Your task to perform on an android device: find snoozed emails in the gmail app Image 0: 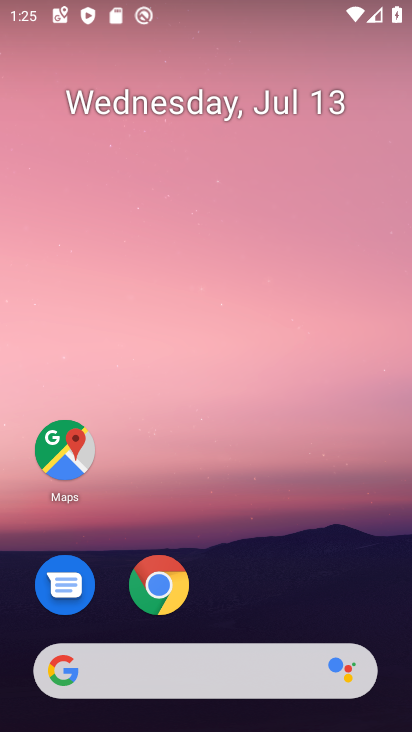
Step 0: drag from (196, 662) to (287, 242)
Your task to perform on an android device: find snoozed emails in the gmail app Image 1: 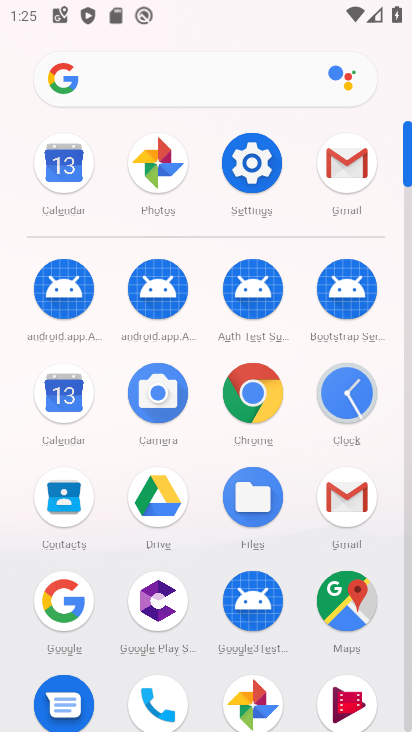
Step 1: click (347, 171)
Your task to perform on an android device: find snoozed emails in the gmail app Image 2: 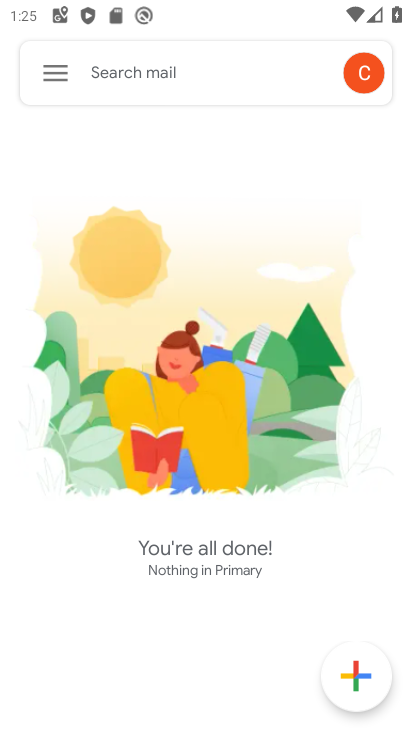
Step 2: click (54, 74)
Your task to perform on an android device: find snoozed emails in the gmail app Image 3: 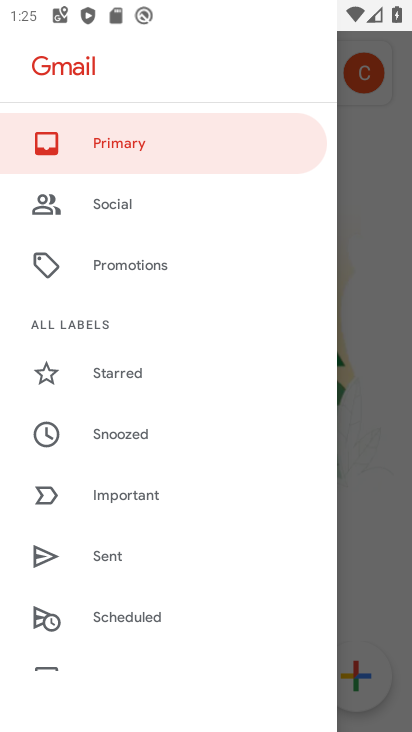
Step 3: click (101, 436)
Your task to perform on an android device: find snoozed emails in the gmail app Image 4: 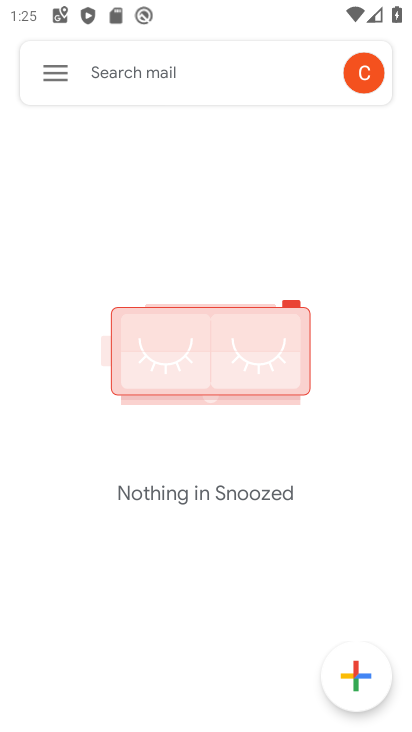
Step 4: task complete